Your task to perform on an android device: Open Youtube and go to the subscriptions tab Image 0: 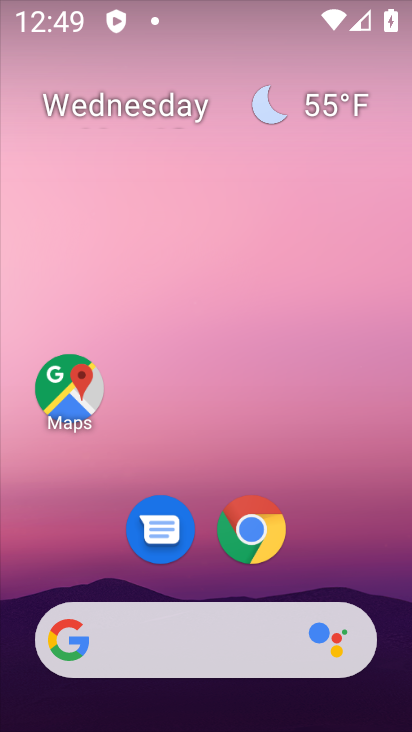
Step 0: drag from (208, 707) to (207, 62)
Your task to perform on an android device: Open Youtube and go to the subscriptions tab Image 1: 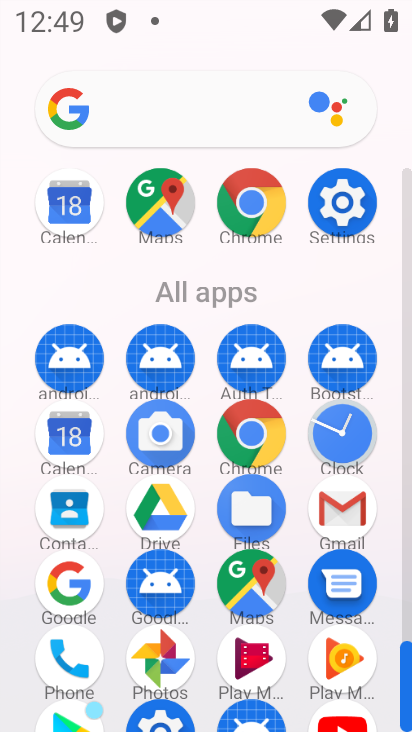
Step 1: drag from (295, 683) to (292, 336)
Your task to perform on an android device: Open Youtube and go to the subscriptions tab Image 2: 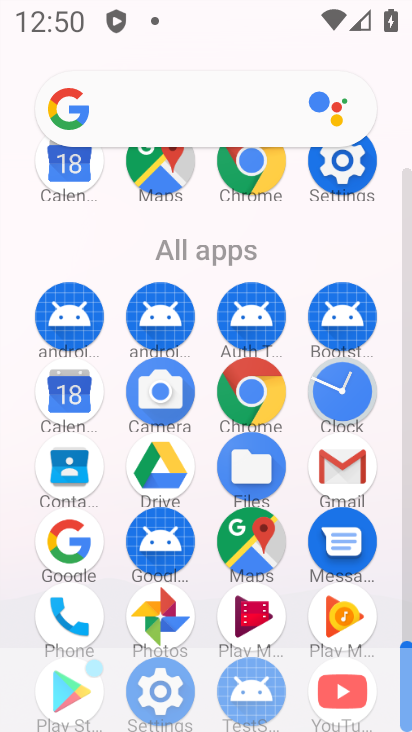
Step 2: click (349, 680)
Your task to perform on an android device: Open Youtube and go to the subscriptions tab Image 3: 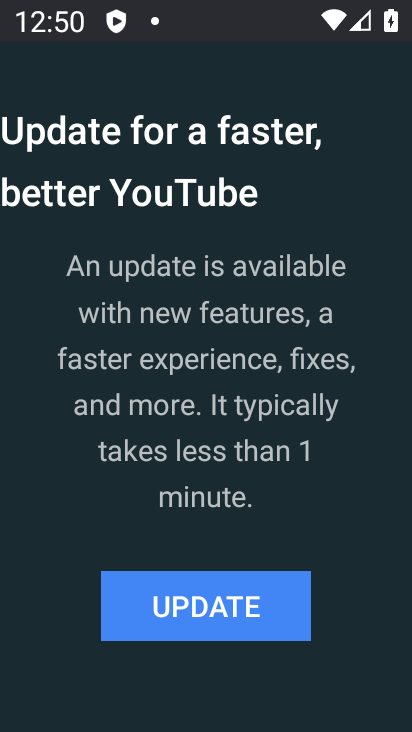
Step 3: task complete